Your task to perform on an android device: Open Chrome and go to settings Image 0: 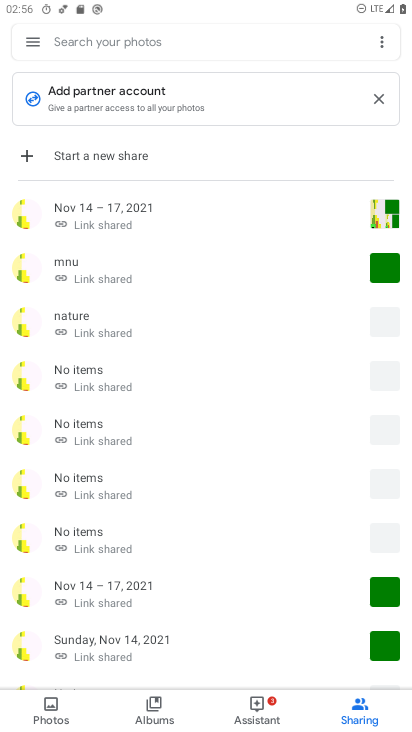
Step 0: press home button
Your task to perform on an android device: Open Chrome and go to settings Image 1: 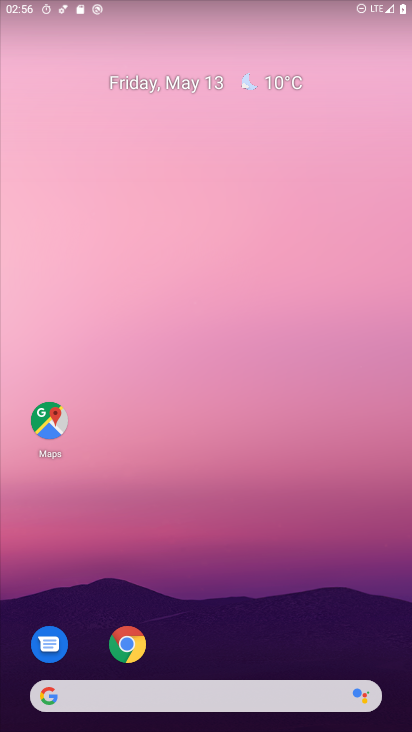
Step 1: drag from (266, 656) to (410, 24)
Your task to perform on an android device: Open Chrome and go to settings Image 2: 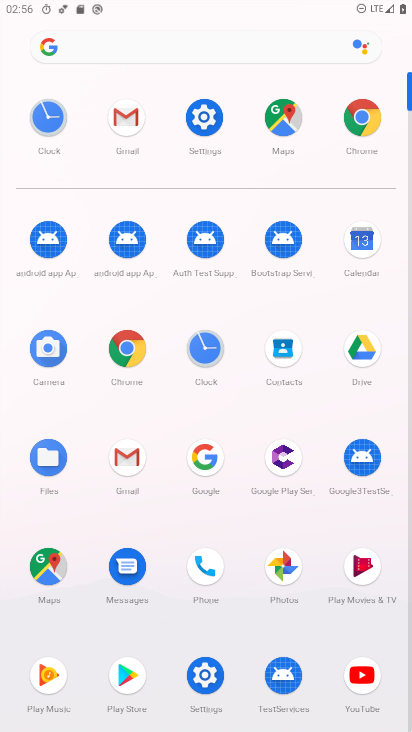
Step 2: click (121, 350)
Your task to perform on an android device: Open Chrome and go to settings Image 3: 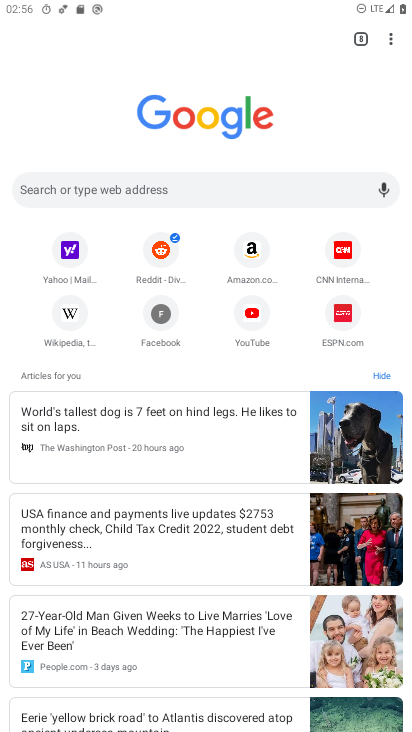
Step 3: click (390, 39)
Your task to perform on an android device: Open Chrome and go to settings Image 4: 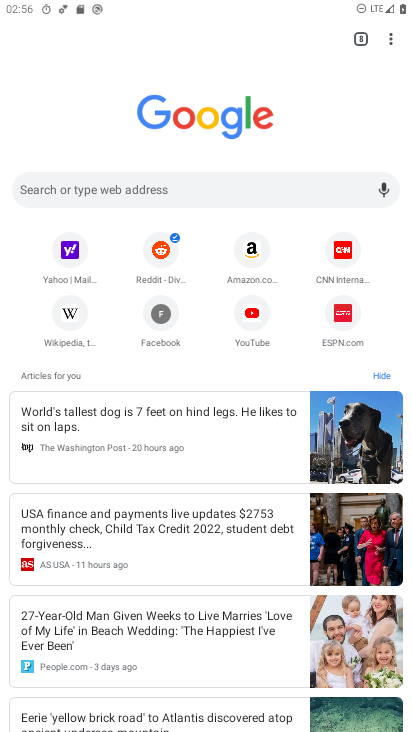
Step 4: click (391, 36)
Your task to perform on an android device: Open Chrome and go to settings Image 5: 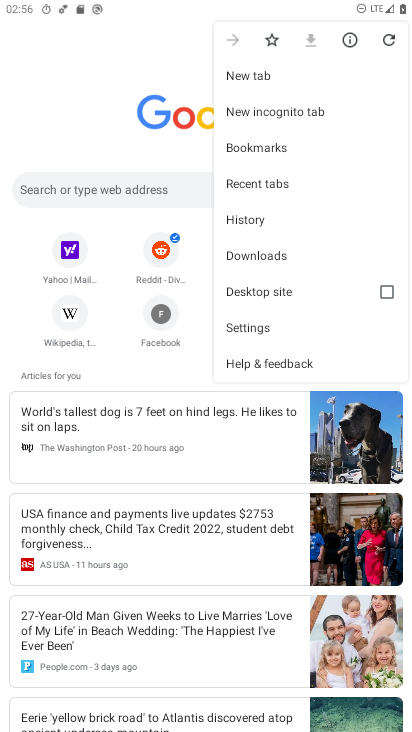
Step 5: click (280, 326)
Your task to perform on an android device: Open Chrome and go to settings Image 6: 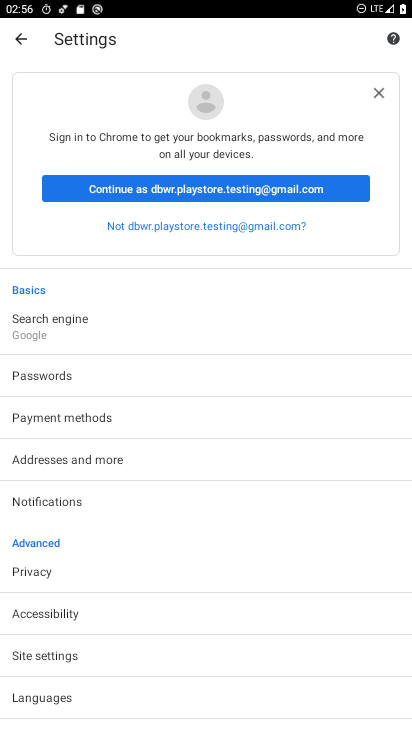
Step 6: task complete